Your task to perform on an android device: set the stopwatch Image 0: 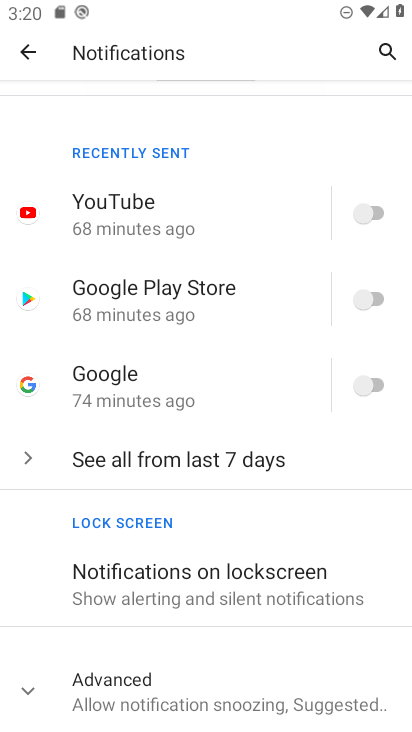
Step 0: press home button
Your task to perform on an android device: set the stopwatch Image 1: 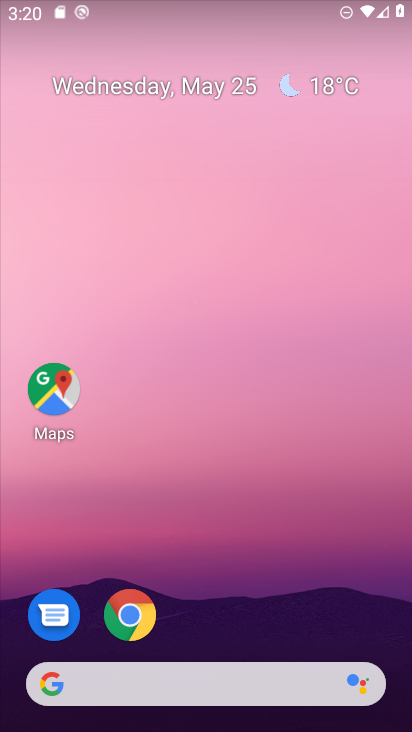
Step 1: drag from (226, 586) to (238, 17)
Your task to perform on an android device: set the stopwatch Image 2: 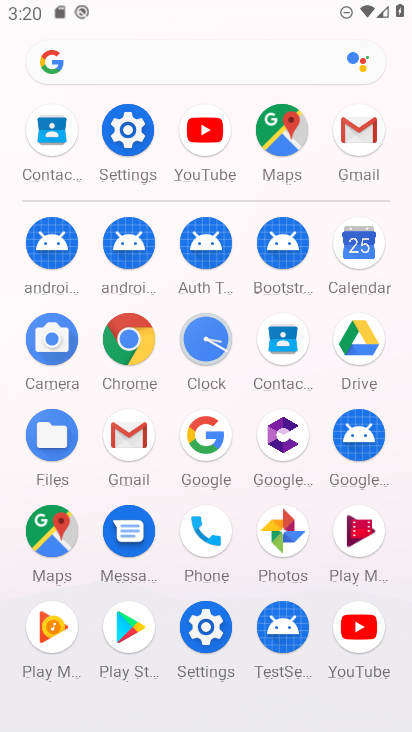
Step 2: click (211, 336)
Your task to perform on an android device: set the stopwatch Image 3: 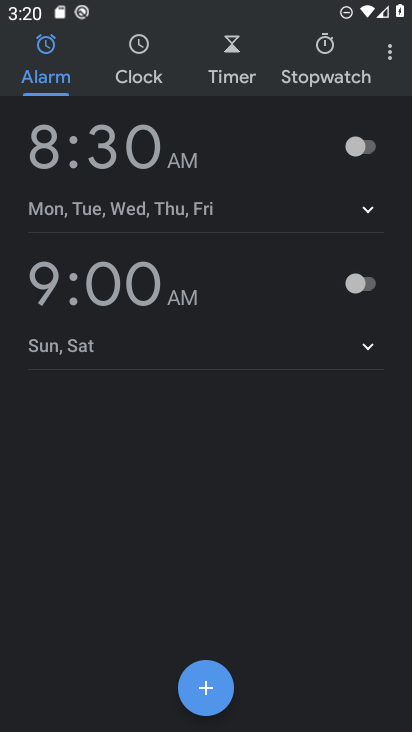
Step 3: click (320, 50)
Your task to perform on an android device: set the stopwatch Image 4: 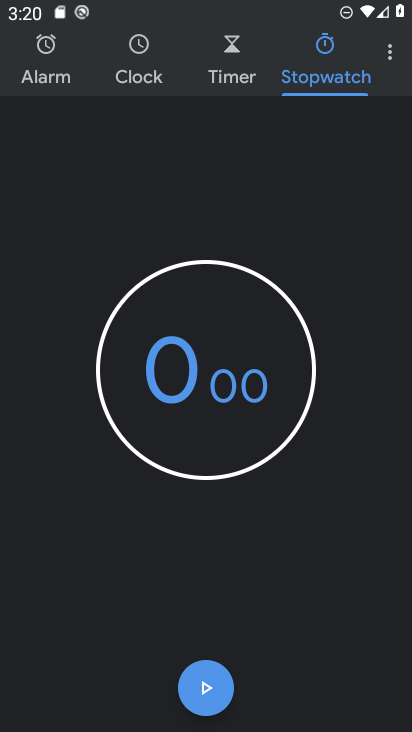
Step 4: task complete